Your task to perform on an android device: What is the recent news? Image 0: 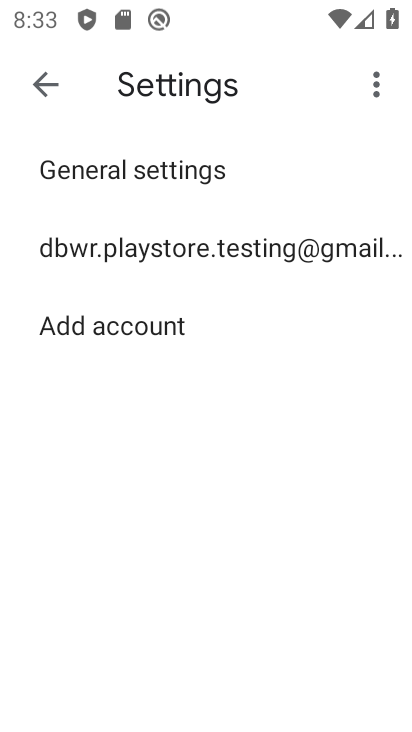
Step 0: press home button
Your task to perform on an android device: What is the recent news? Image 1: 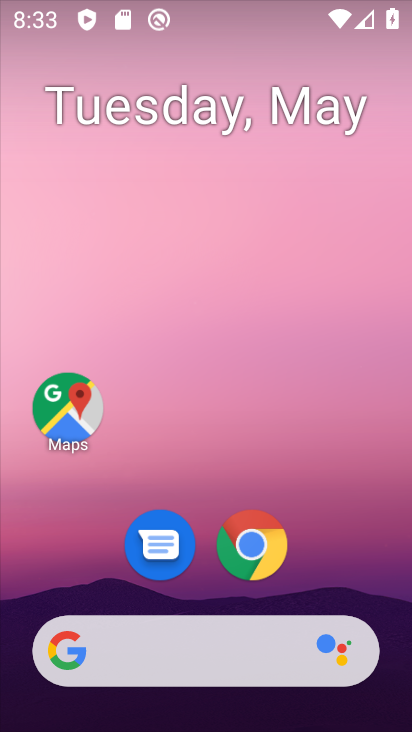
Step 1: drag from (335, 568) to (314, 197)
Your task to perform on an android device: What is the recent news? Image 2: 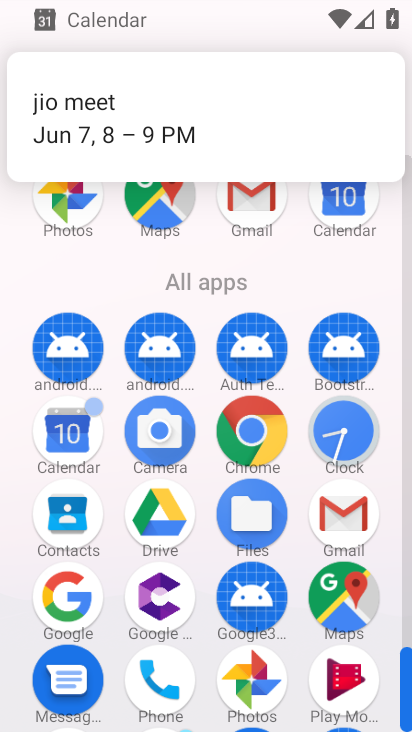
Step 2: click (233, 451)
Your task to perform on an android device: What is the recent news? Image 3: 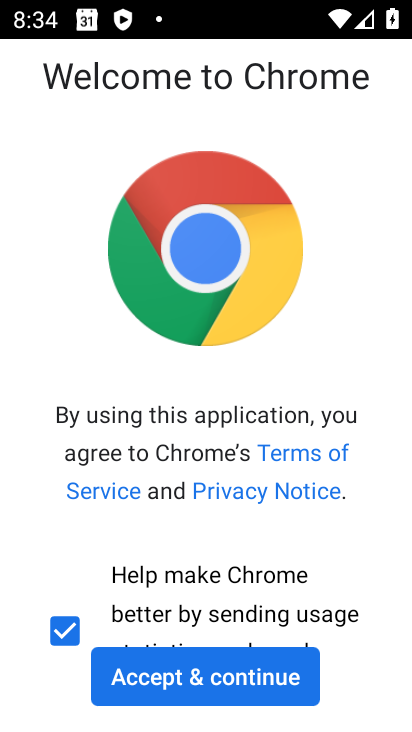
Step 3: click (226, 691)
Your task to perform on an android device: What is the recent news? Image 4: 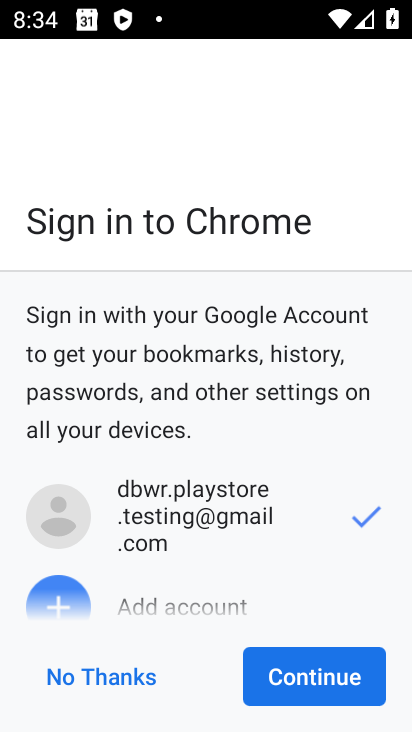
Step 4: click (290, 660)
Your task to perform on an android device: What is the recent news? Image 5: 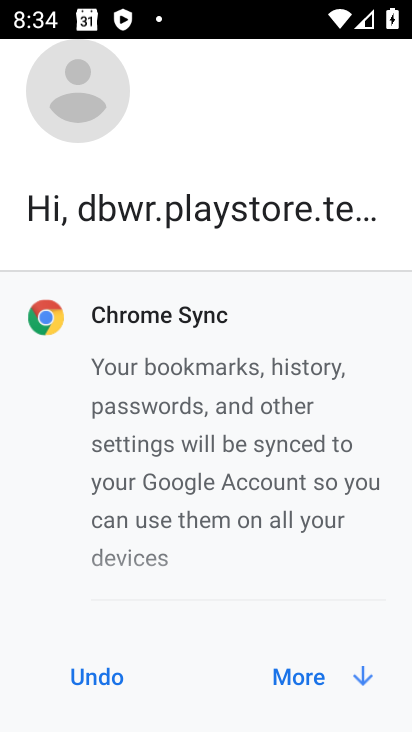
Step 5: click (293, 672)
Your task to perform on an android device: What is the recent news? Image 6: 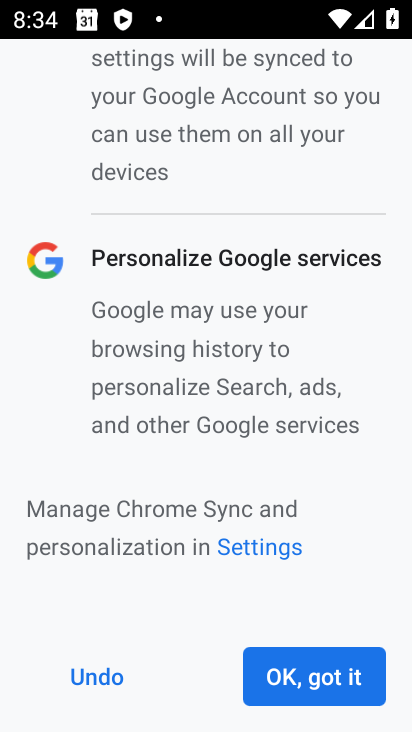
Step 6: click (294, 672)
Your task to perform on an android device: What is the recent news? Image 7: 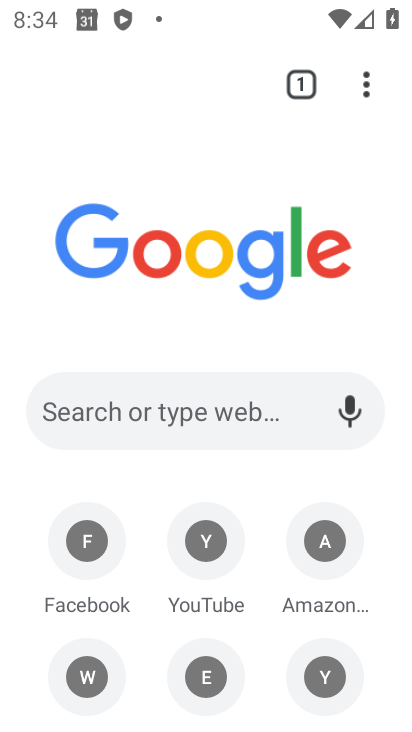
Step 7: click (175, 409)
Your task to perform on an android device: What is the recent news? Image 8: 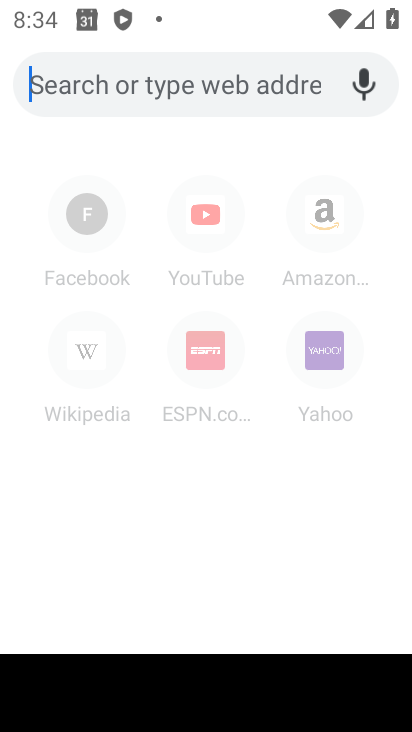
Step 8: type "what is the recent news"
Your task to perform on an android device: What is the recent news? Image 9: 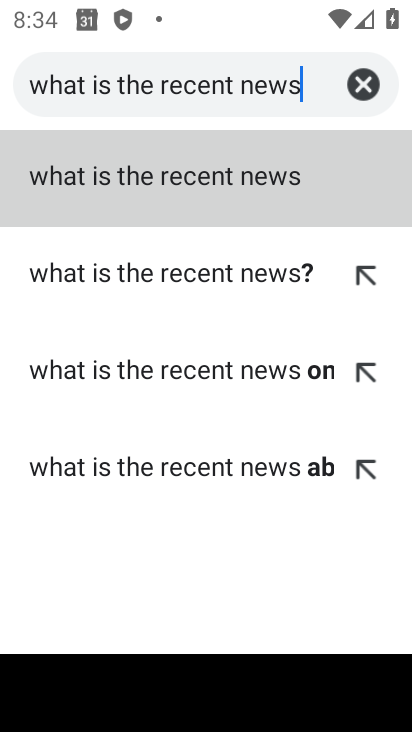
Step 9: click (235, 176)
Your task to perform on an android device: What is the recent news? Image 10: 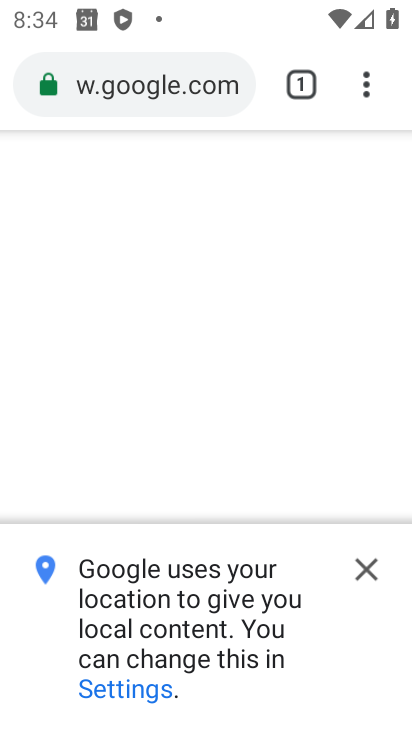
Step 10: click (356, 581)
Your task to perform on an android device: What is the recent news? Image 11: 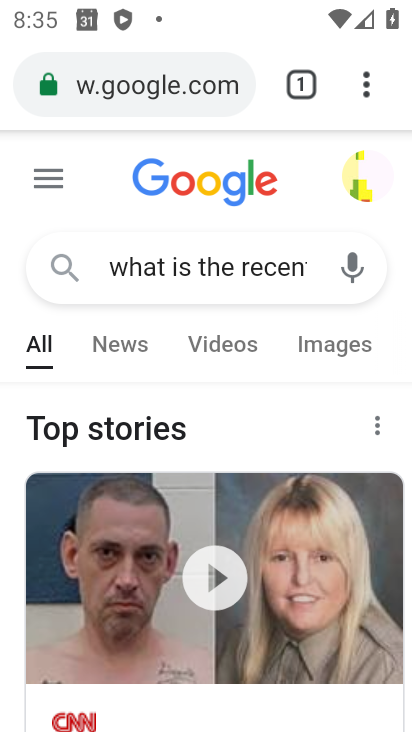
Step 11: task complete